Your task to perform on an android device: Do I have any events tomorrow? Image 0: 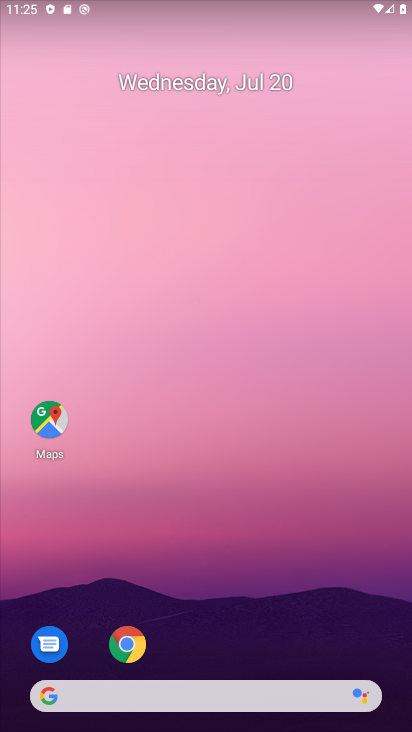
Step 0: click (271, 731)
Your task to perform on an android device: Do I have any events tomorrow? Image 1: 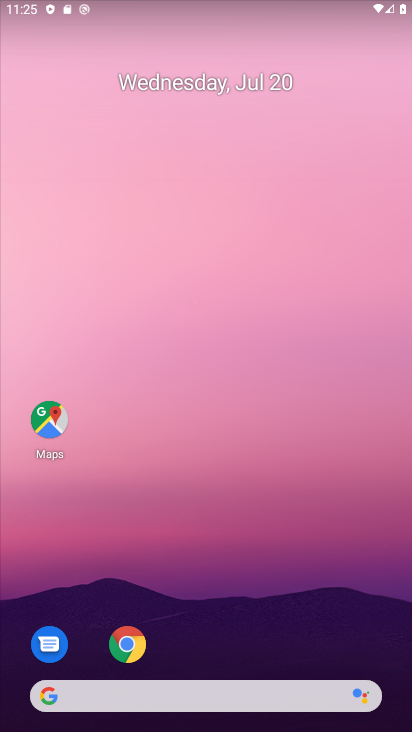
Step 1: drag from (329, 719) to (358, 3)
Your task to perform on an android device: Do I have any events tomorrow? Image 2: 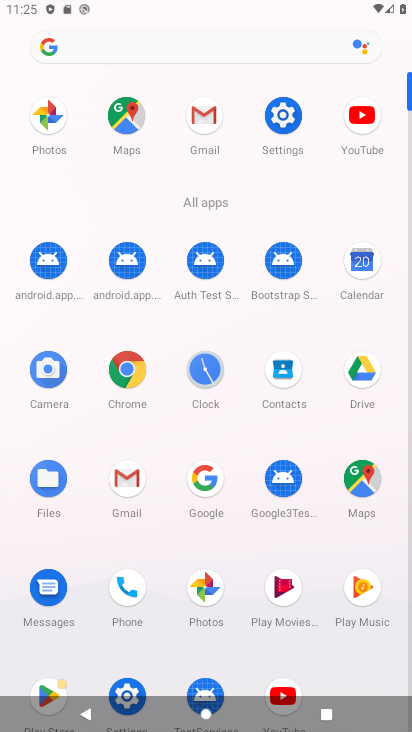
Step 2: click (356, 255)
Your task to perform on an android device: Do I have any events tomorrow? Image 3: 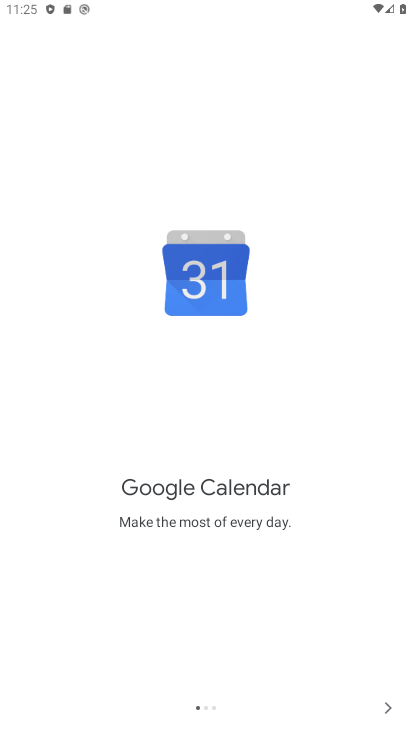
Step 3: click (384, 709)
Your task to perform on an android device: Do I have any events tomorrow? Image 4: 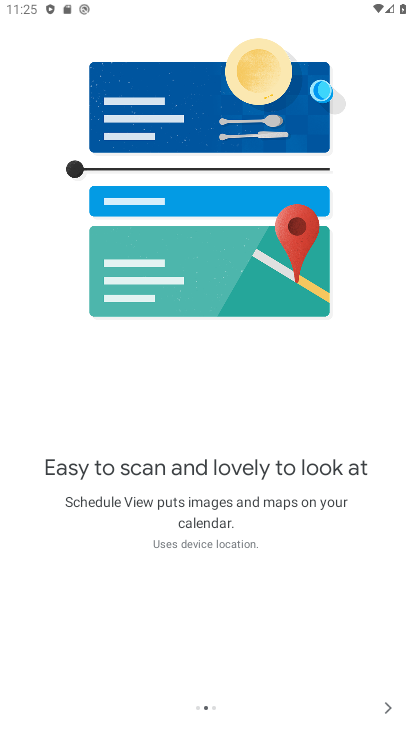
Step 4: click (384, 709)
Your task to perform on an android device: Do I have any events tomorrow? Image 5: 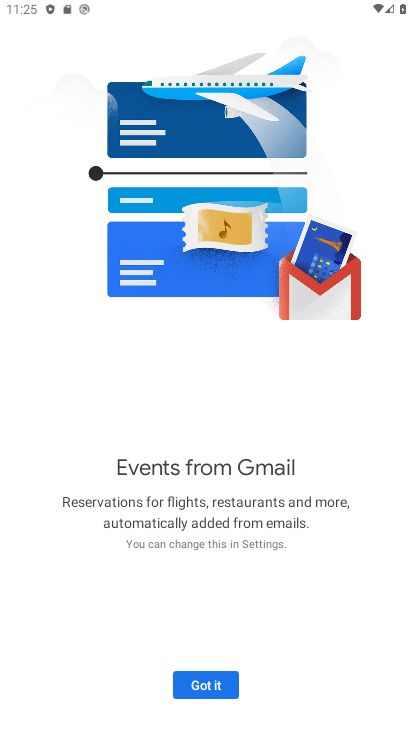
Step 5: click (196, 685)
Your task to perform on an android device: Do I have any events tomorrow? Image 6: 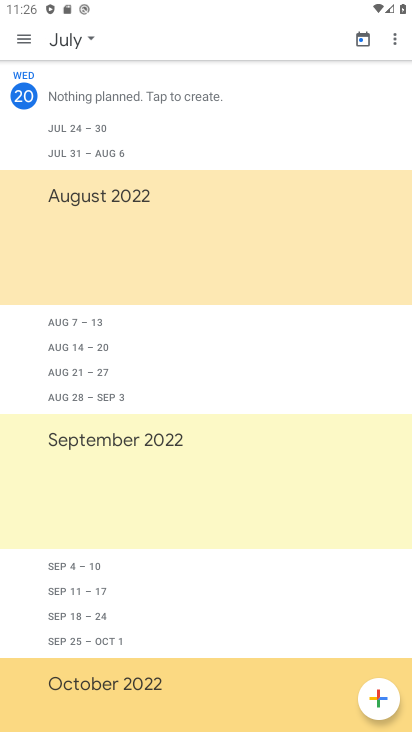
Step 6: click (83, 40)
Your task to perform on an android device: Do I have any events tomorrow? Image 7: 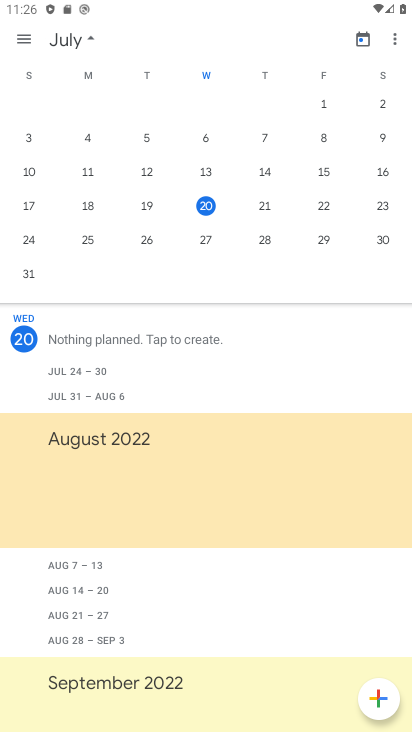
Step 7: click (256, 206)
Your task to perform on an android device: Do I have any events tomorrow? Image 8: 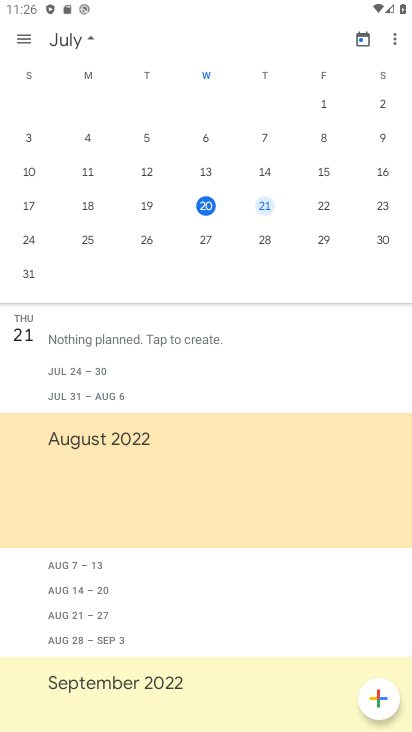
Step 8: task complete